Your task to perform on an android device: change alarm snooze length Image 0: 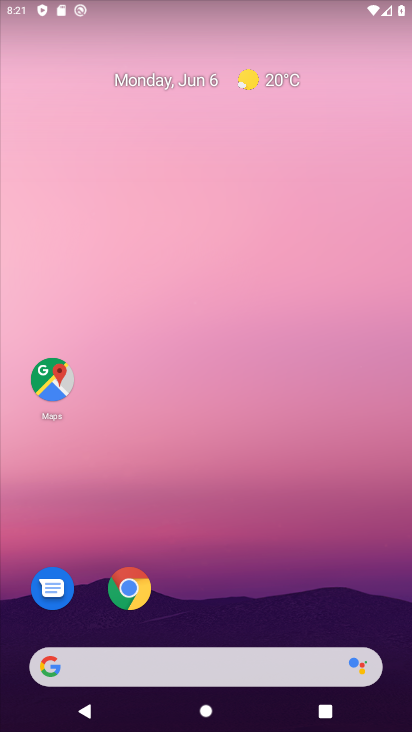
Step 0: drag from (260, 587) to (175, 2)
Your task to perform on an android device: change alarm snooze length Image 1: 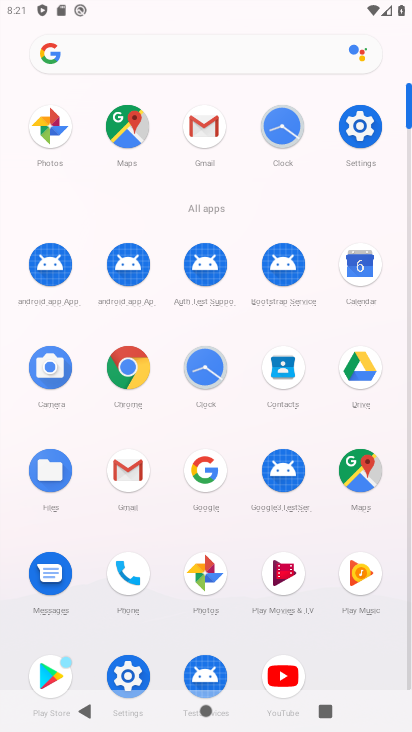
Step 1: click (285, 135)
Your task to perform on an android device: change alarm snooze length Image 2: 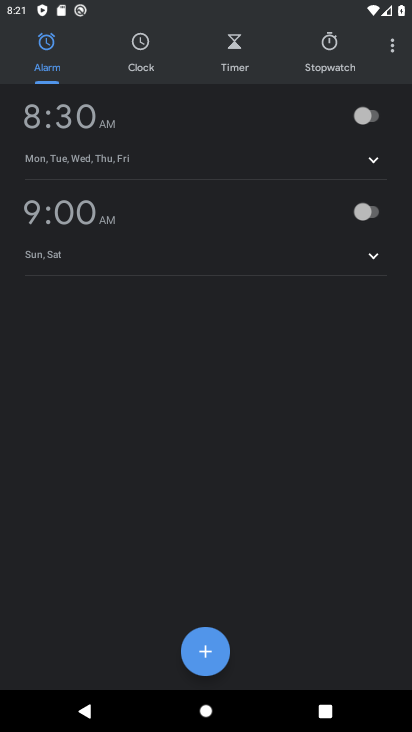
Step 2: click (387, 47)
Your task to perform on an android device: change alarm snooze length Image 3: 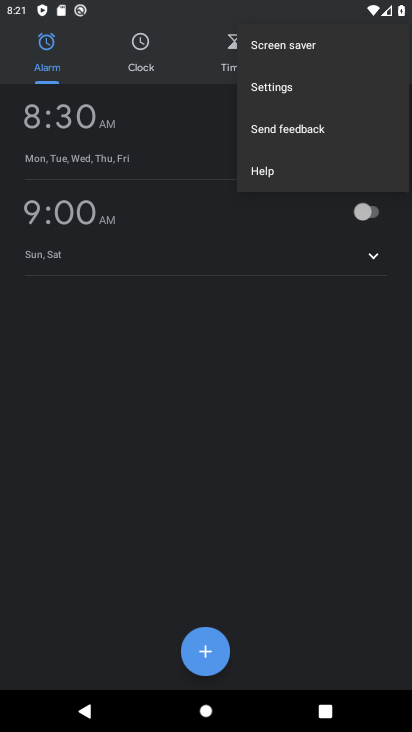
Step 3: click (208, 360)
Your task to perform on an android device: change alarm snooze length Image 4: 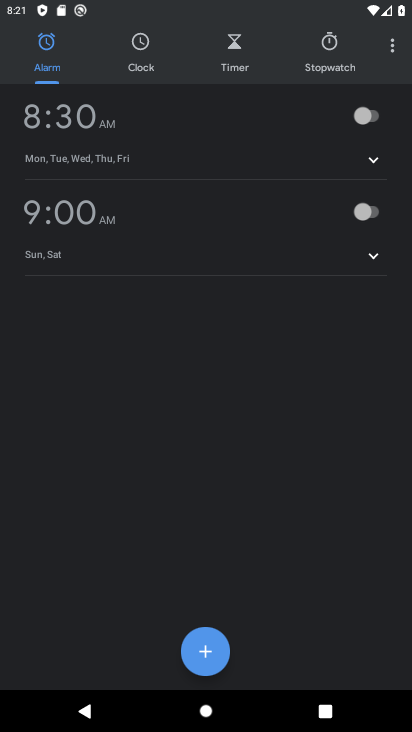
Step 4: click (399, 49)
Your task to perform on an android device: change alarm snooze length Image 5: 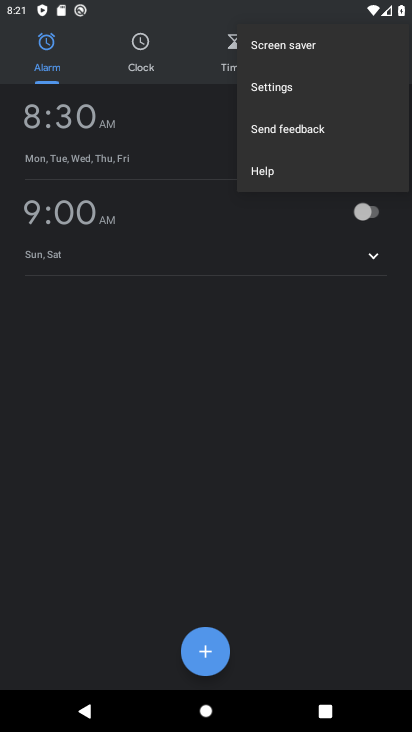
Step 5: click (267, 86)
Your task to perform on an android device: change alarm snooze length Image 6: 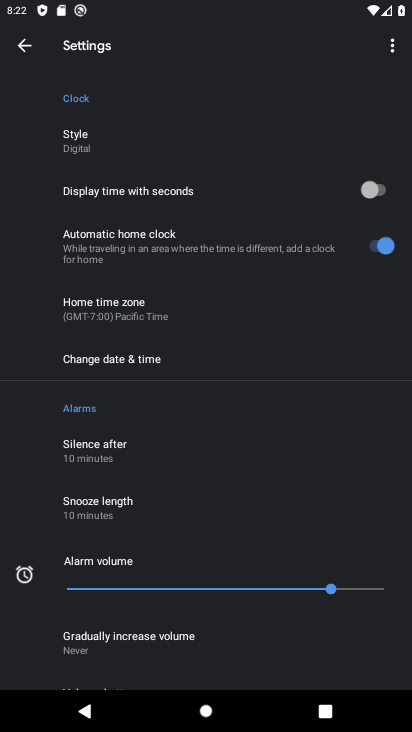
Step 6: click (119, 507)
Your task to perform on an android device: change alarm snooze length Image 7: 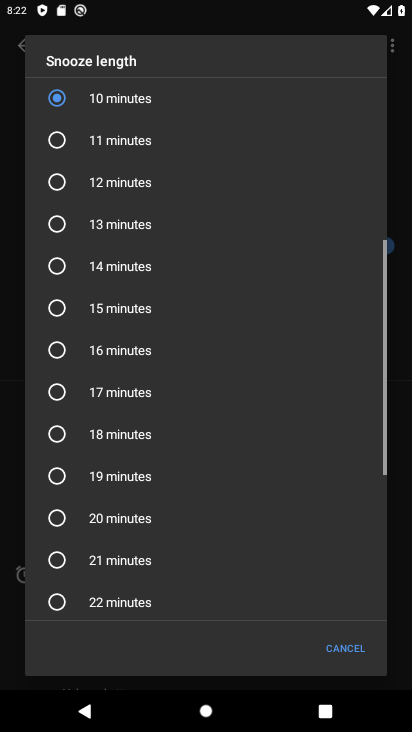
Step 7: click (132, 477)
Your task to perform on an android device: change alarm snooze length Image 8: 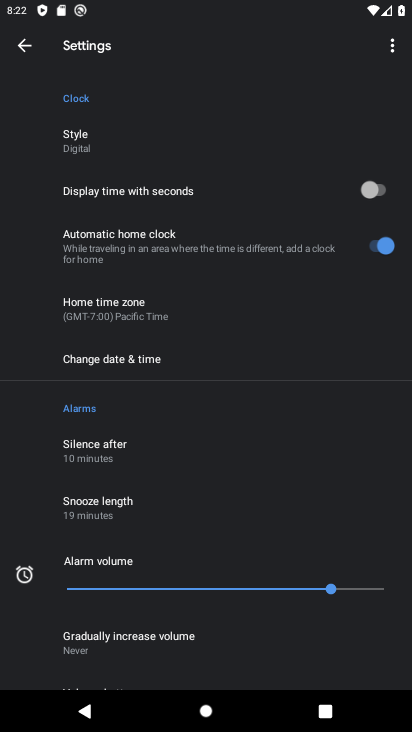
Step 8: task complete